Your task to perform on an android device: toggle translation in the chrome app Image 0: 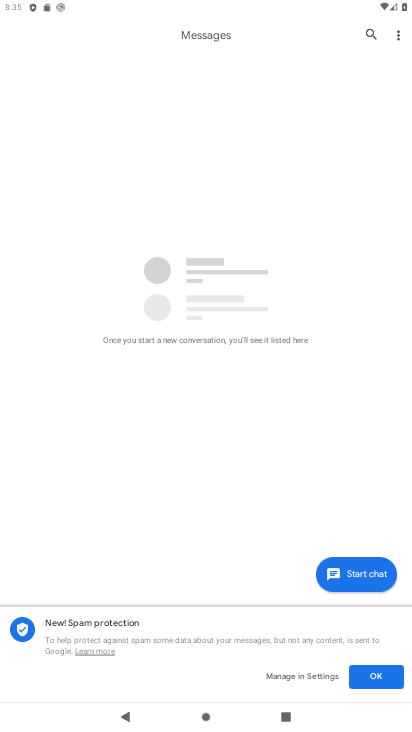
Step 0: press home button
Your task to perform on an android device: toggle translation in the chrome app Image 1: 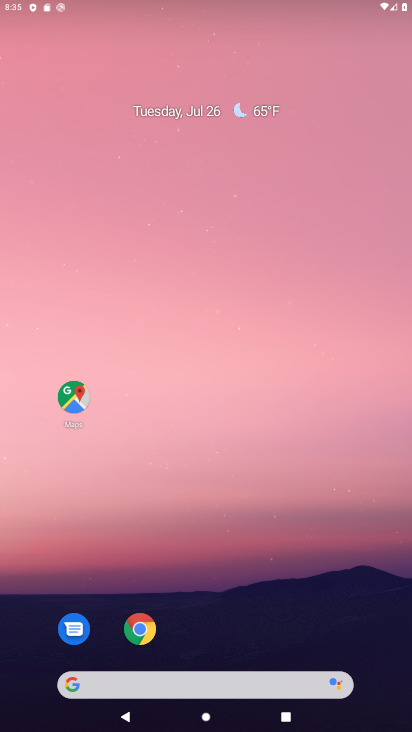
Step 1: drag from (251, 537) to (199, 145)
Your task to perform on an android device: toggle translation in the chrome app Image 2: 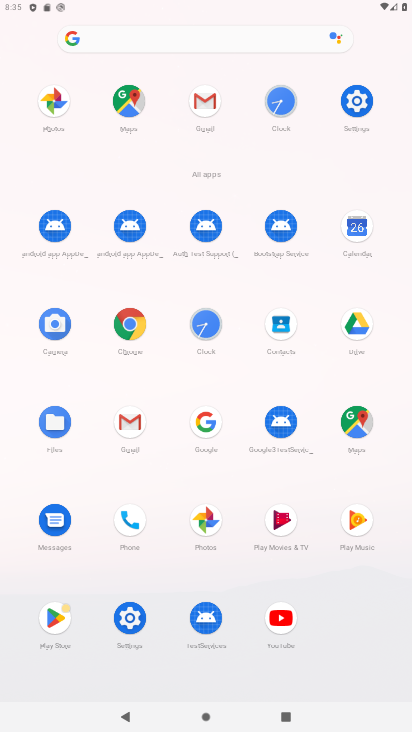
Step 2: click (132, 331)
Your task to perform on an android device: toggle translation in the chrome app Image 3: 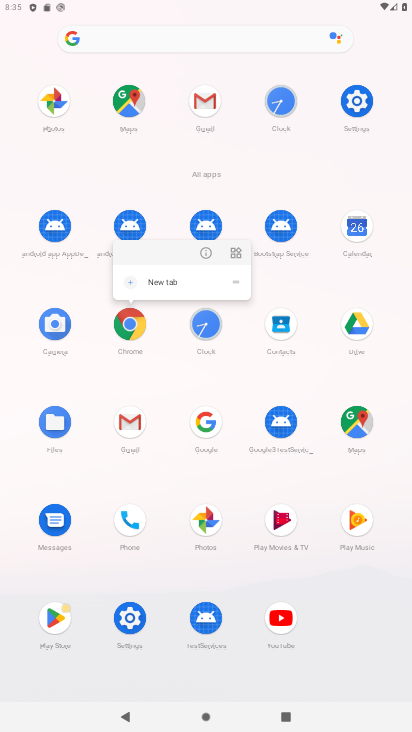
Step 3: click (133, 326)
Your task to perform on an android device: toggle translation in the chrome app Image 4: 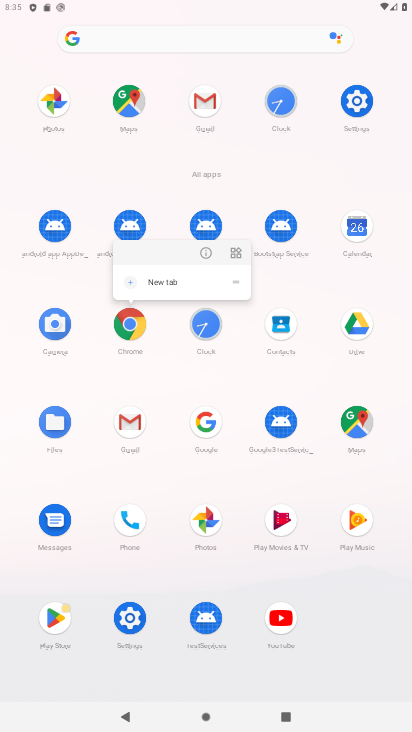
Step 4: click (133, 326)
Your task to perform on an android device: toggle translation in the chrome app Image 5: 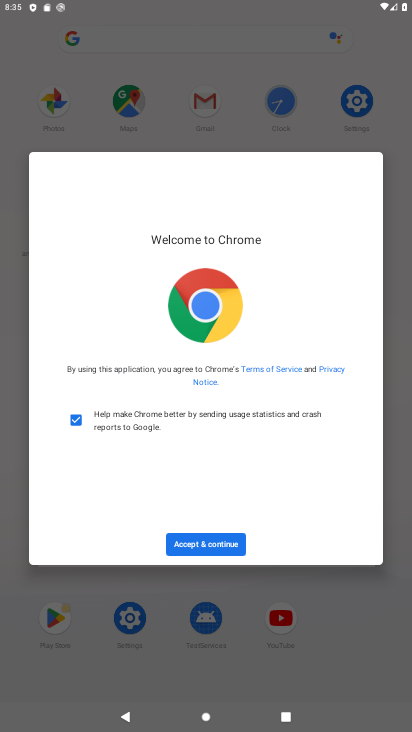
Step 5: click (210, 545)
Your task to perform on an android device: toggle translation in the chrome app Image 6: 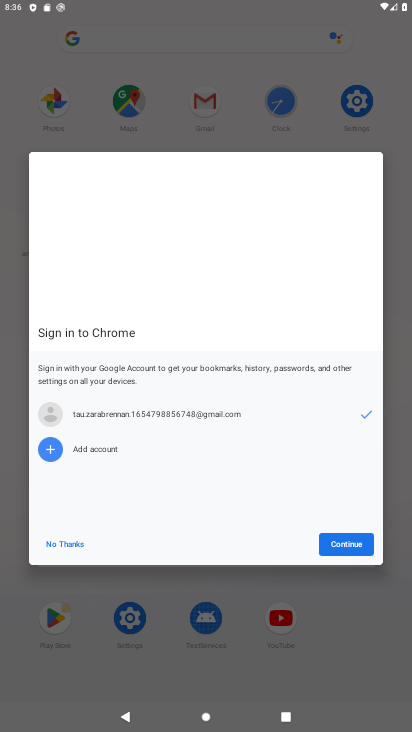
Step 6: click (357, 543)
Your task to perform on an android device: toggle translation in the chrome app Image 7: 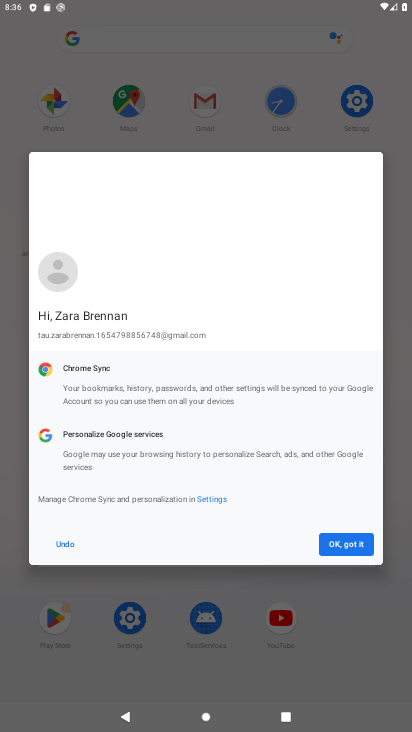
Step 7: click (357, 543)
Your task to perform on an android device: toggle translation in the chrome app Image 8: 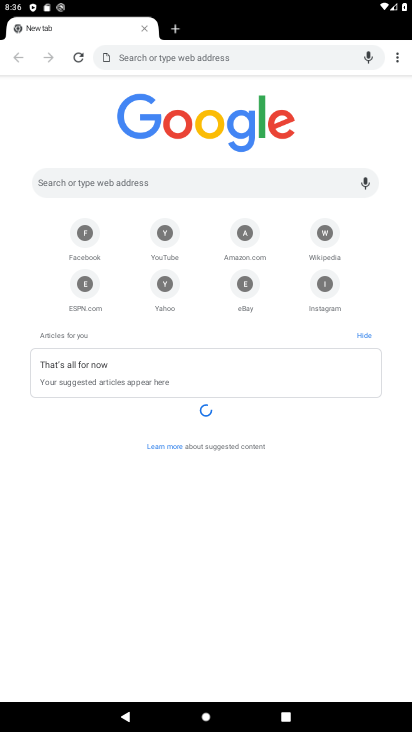
Step 8: drag from (393, 52) to (285, 261)
Your task to perform on an android device: toggle translation in the chrome app Image 9: 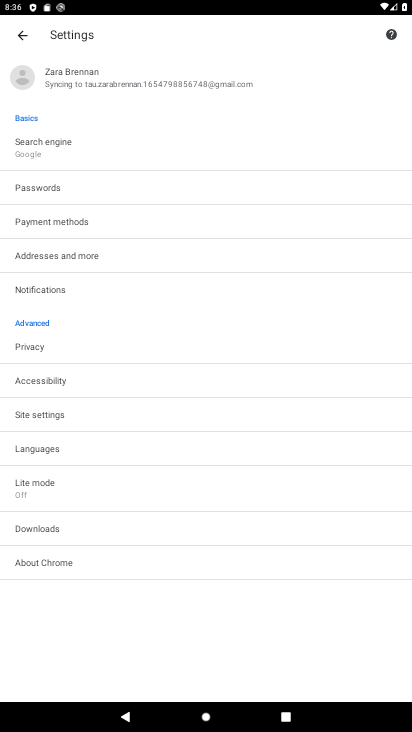
Step 9: click (65, 450)
Your task to perform on an android device: toggle translation in the chrome app Image 10: 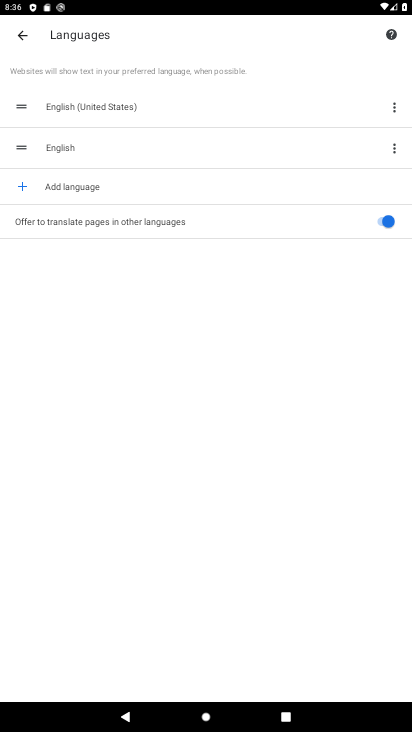
Step 10: click (371, 230)
Your task to perform on an android device: toggle translation in the chrome app Image 11: 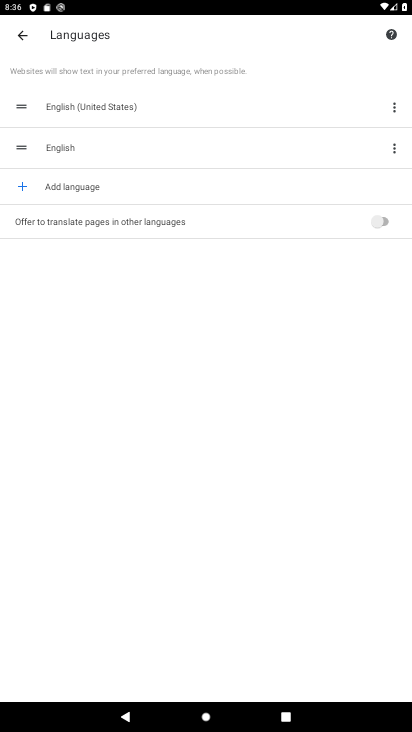
Step 11: task complete